Your task to perform on an android device: change alarm snooze length Image 0: 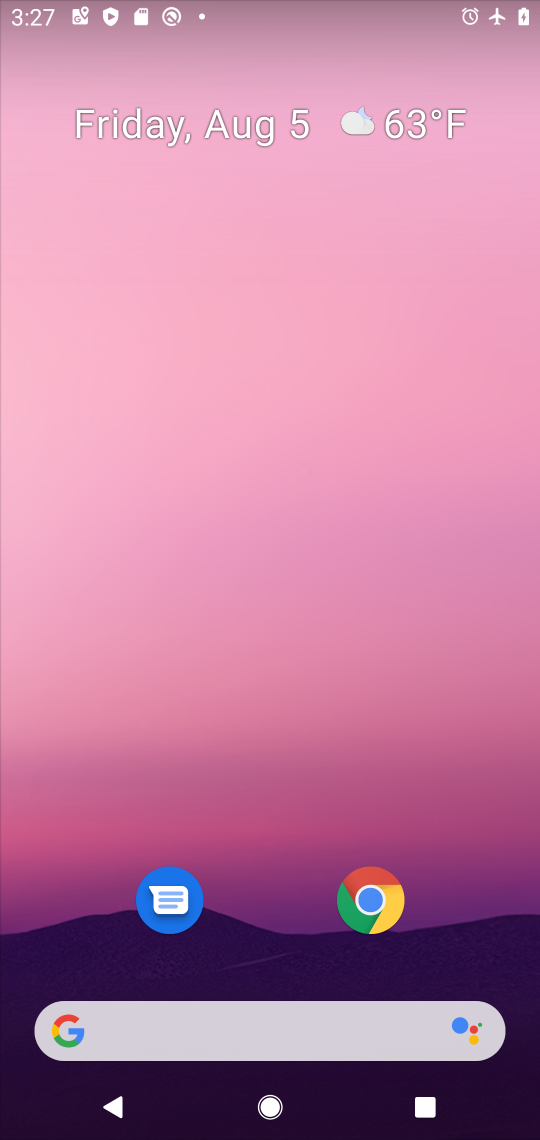
Step 0: drag from (283, 954) to (346, 280)
Your task to perform on an android device: change alarm snooze length Image 1: 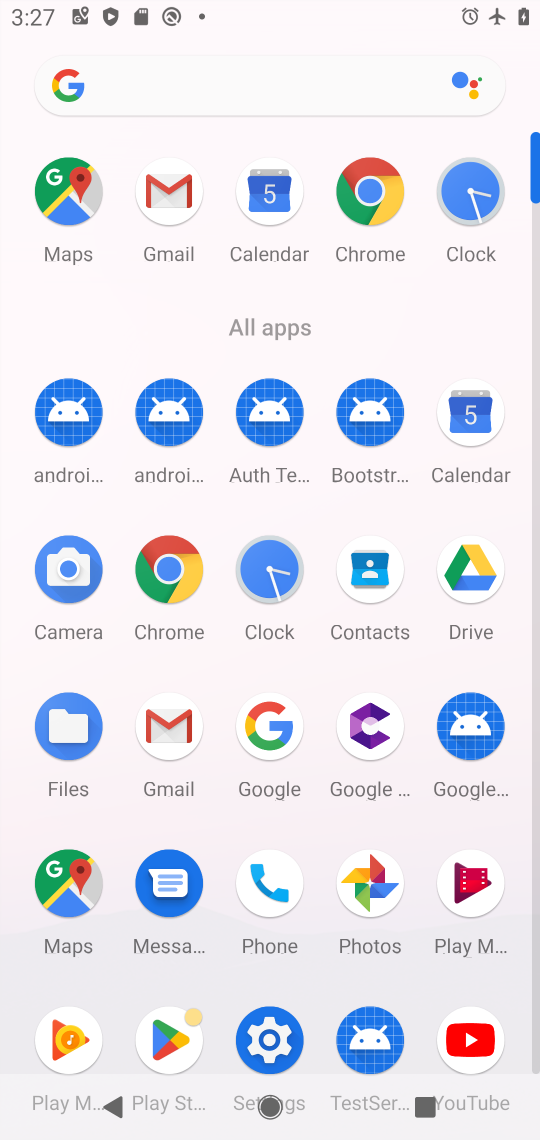
Step 1: click (284, 578)
Your task to perform on an android device: change alarm snooze length Image 2: 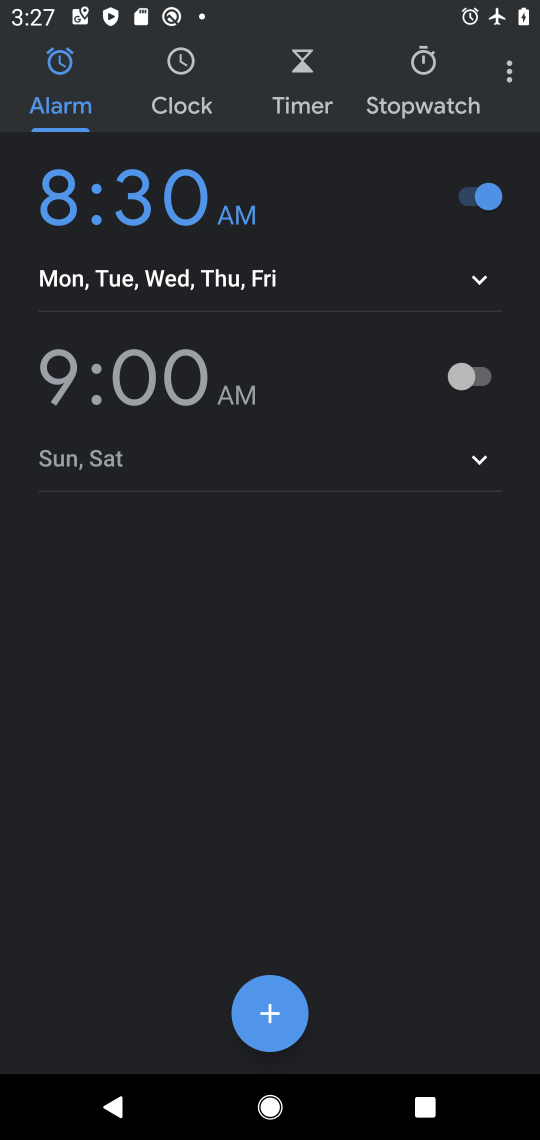
Step 2: click (510, 62)
Your task to perform on an android device: change alarm snooze length Image 3: 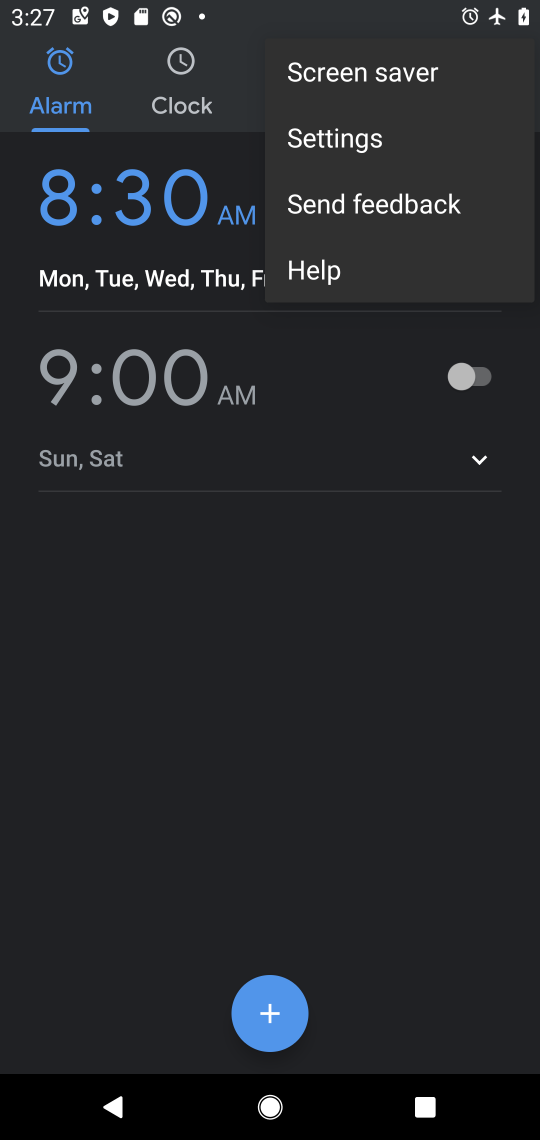
Step 3: click (382, 131)
Your task to perform on an android device: change alarm snooze length Image 4: 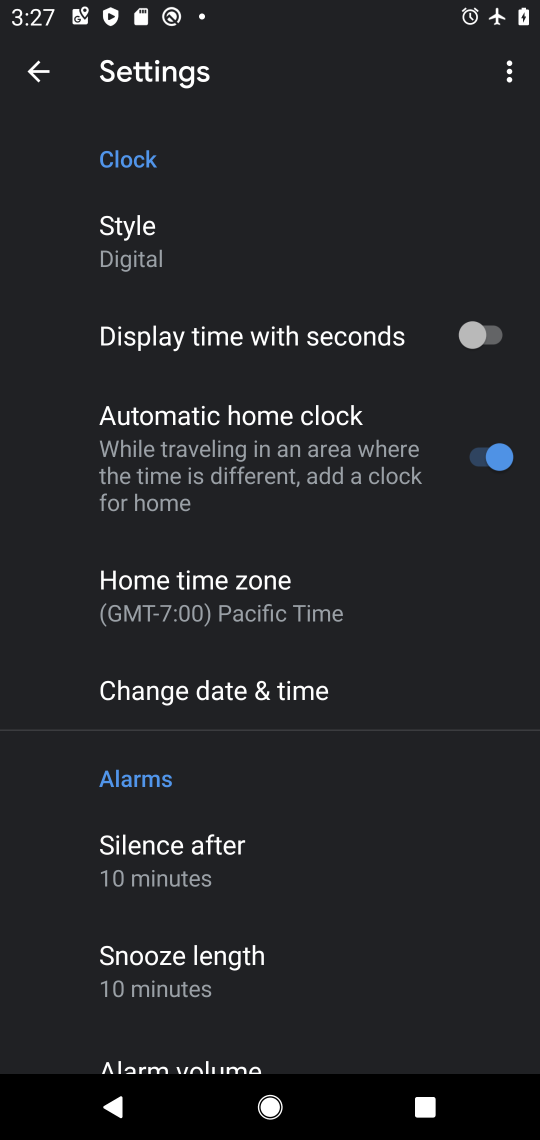
Step 4: click (197, 952)
Your task to perform on an android device: change alarm snooze length Image 5: 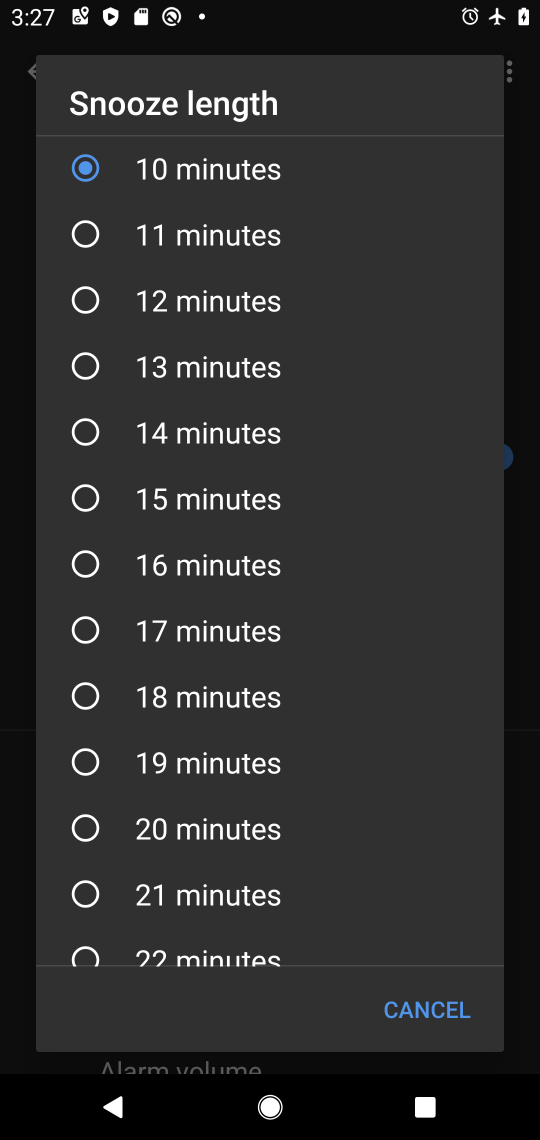
Step 5: click (85, 240)
Your task to perform on an android device: change alarm snooze length Image 6: 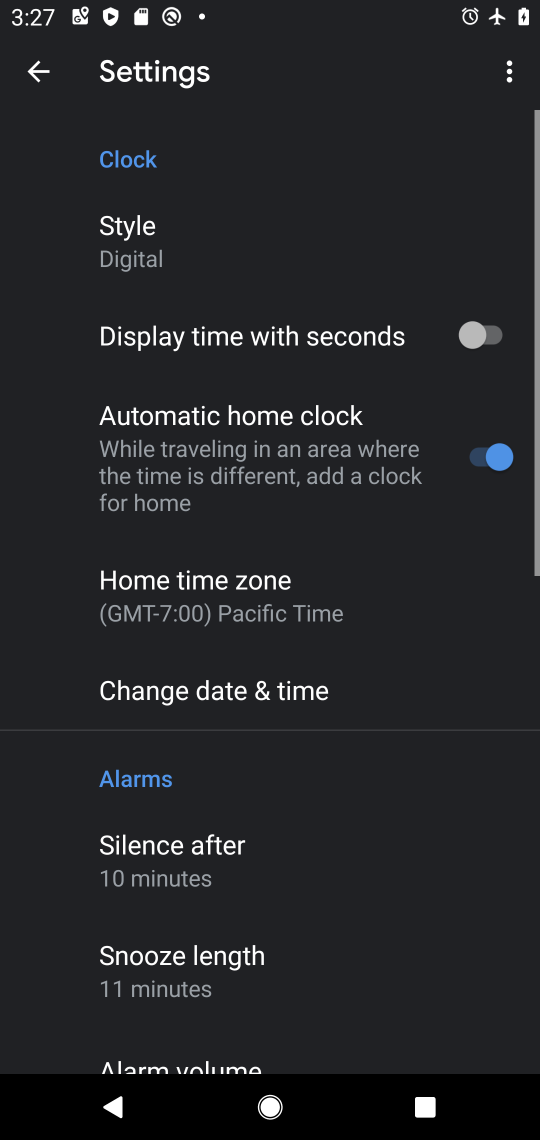
Step 6: task complete